Your task to perform on an android device: Open ESPN.com Image 0: 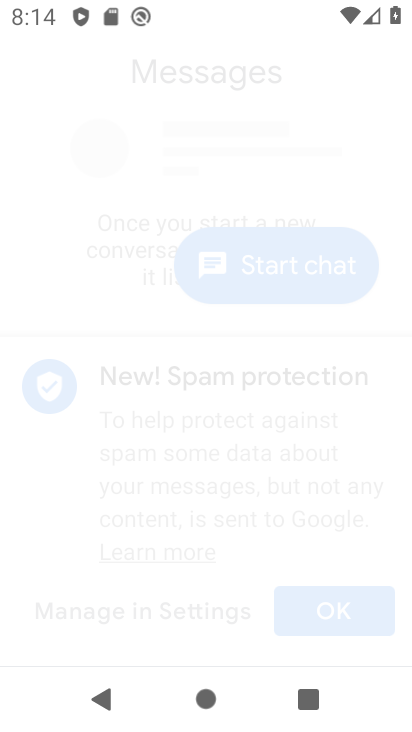
Step 0: drag from (57, 299) to (391, 284)
Your task to perform on an android device: Open ESPN.com Image 1: 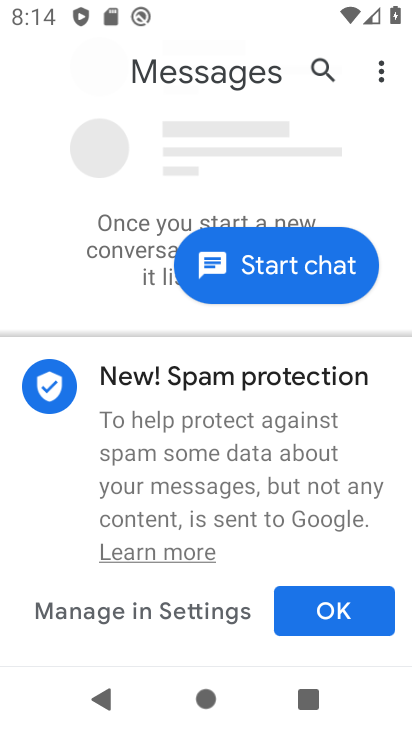
Step 1: press home button
Your task to perform on an android device: Open ESPN.com Image 2: 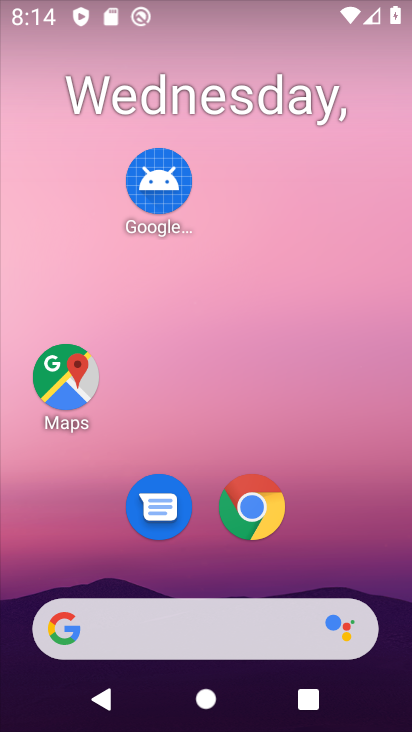
Step 2: click (242, 518)
Your task to perform on an android device: Open ESPN.com Image 3: 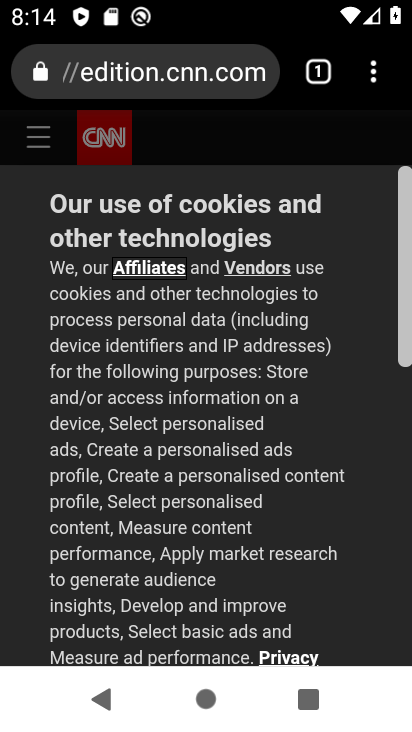
Step 3: click (307, 64)
Your task to perform on an android device: Open ESPN.com Image 4: 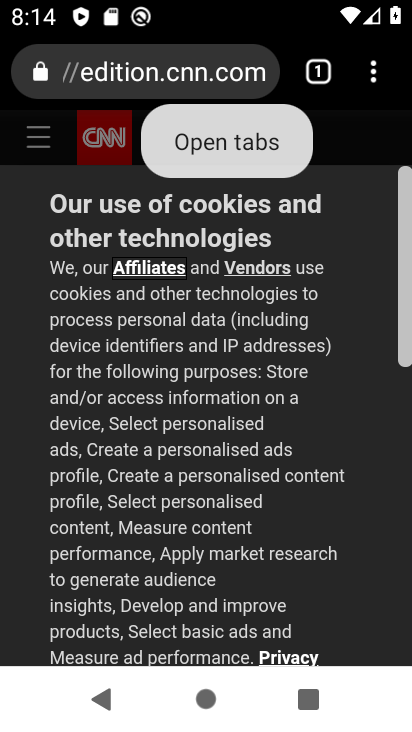
Step 4: click (310, 73)
Your task to perform on an android device: Open ESPN.com Image 5: 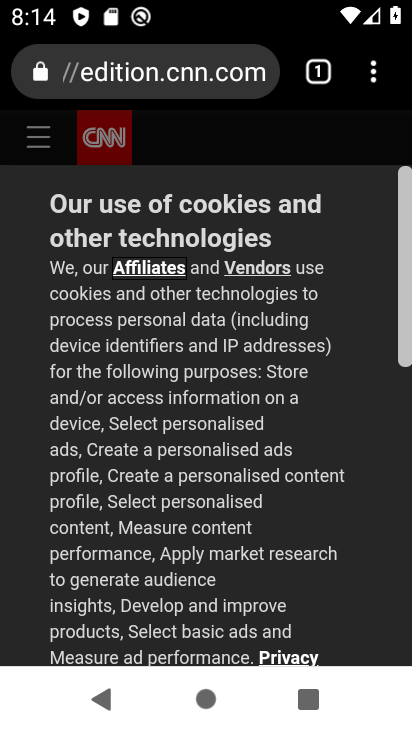
Step 5: click (312, 67)
Your task to perform on an android device: Open ESPN.com Image 6: 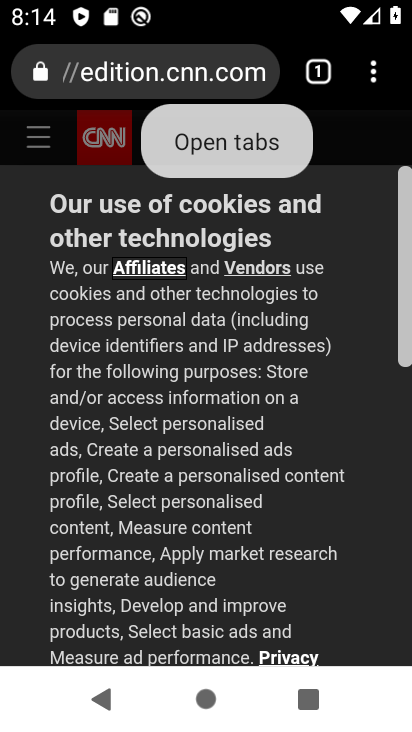
Step 6: click (315, 78)
Your task to perform on an android device: Open ESPN.com Image 7: 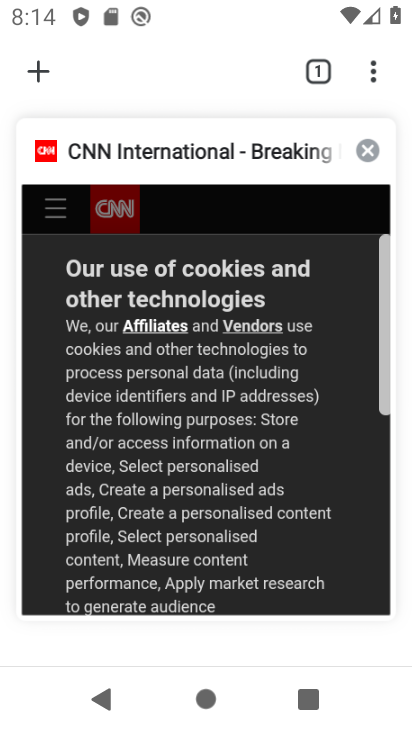
Step 7: click (41, 71)
Your task to perform on an android device: Open ESPN.com Image 8: 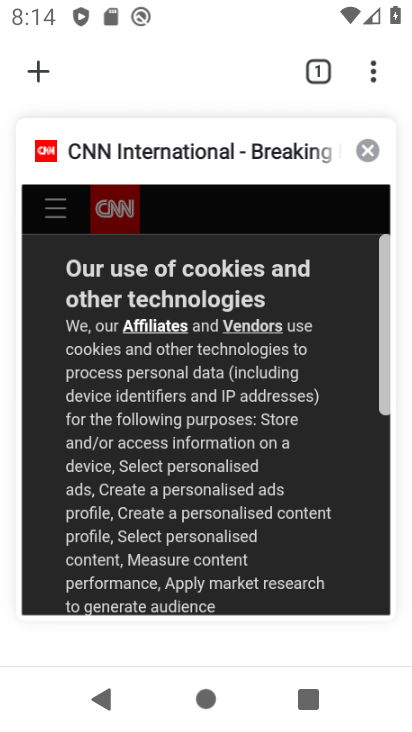
Step 8: click (42, 65)
Your task to perform on an android device: Open ESPN.com Image 9: 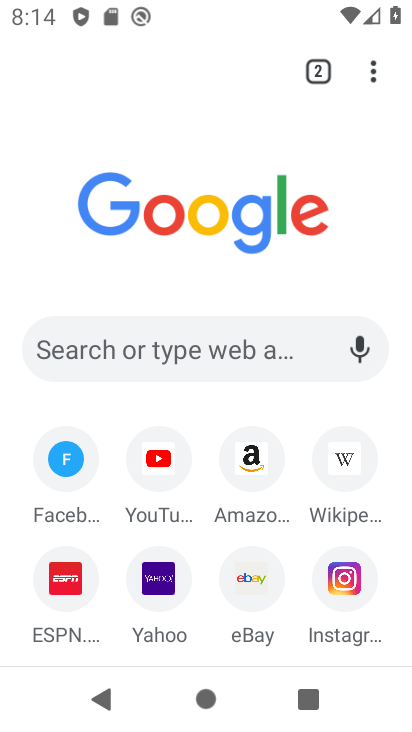
Step 9: click (71, 566)
Your task to perform on an android device: Open ESPN.com Image 10: 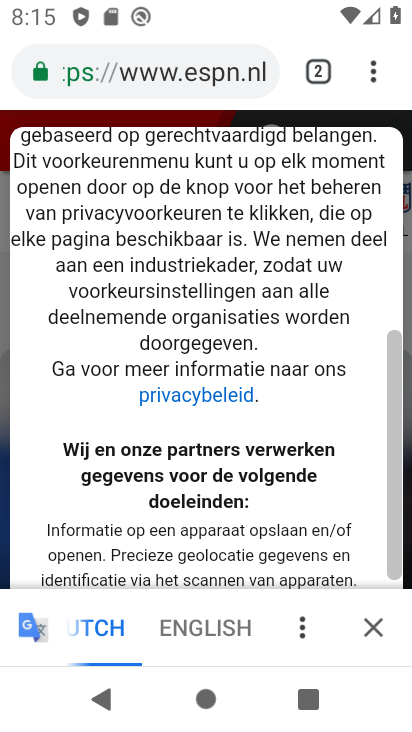
Step 10: task complete